Your task to perform on an android device: When is my next meeting? Image 0: 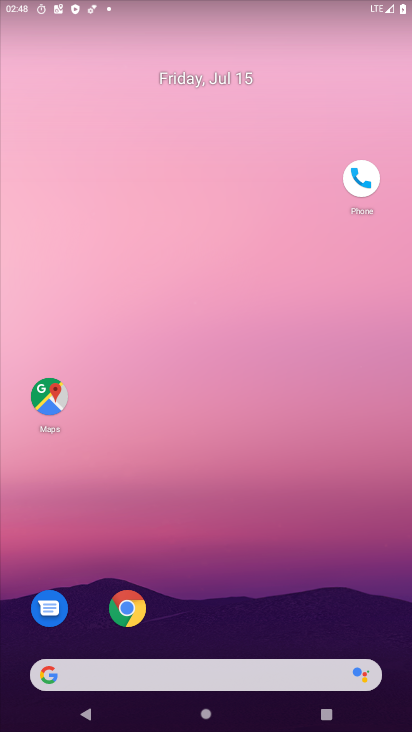
Step 0: drag from (259, 268) to (259, 217)
Your task to perform on an android device: When is my next meeting? Image 1: 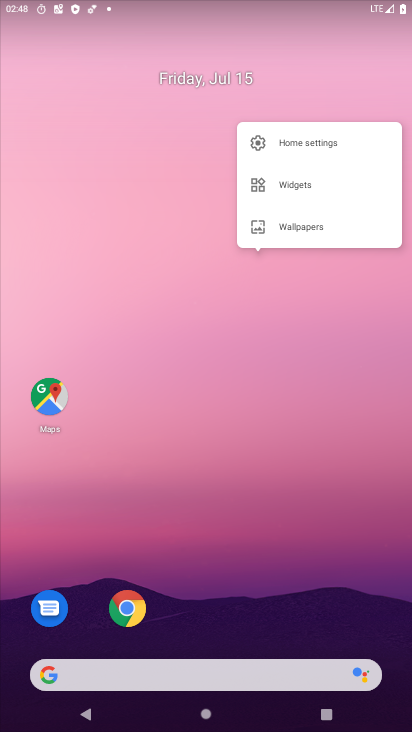
Step 1: click (256, 210)
Your task to perform on an android device: When is my next meeting? Image 2: 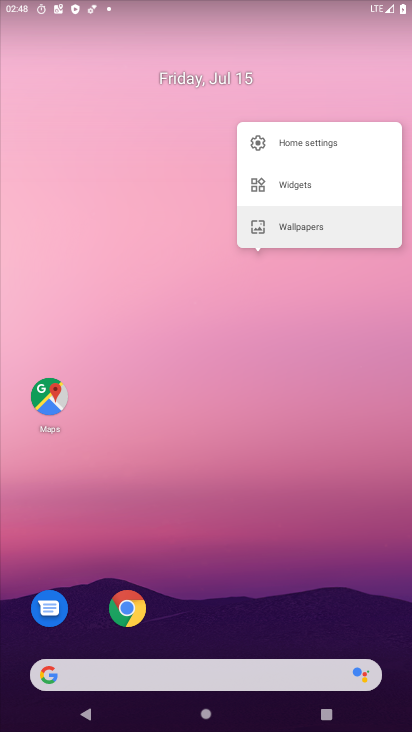
Step 2: drag from (192, 609) to (212, 354)
Your task to perform on an android device: When is my next meeting? Image 3: 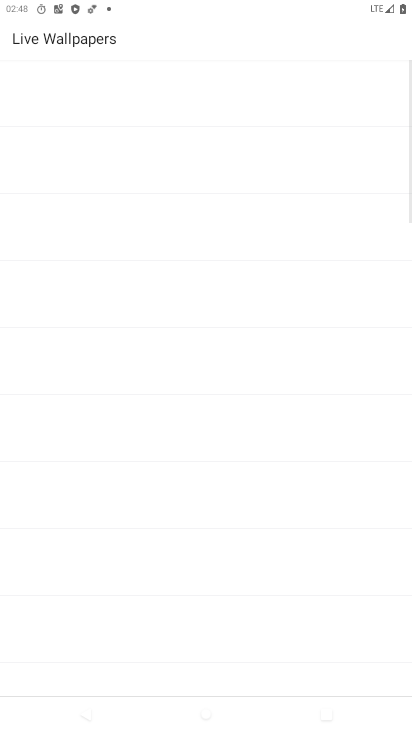
Step 3: click (255, 256)
Your task to perform on an android device: When is my next meeting? Image 4: 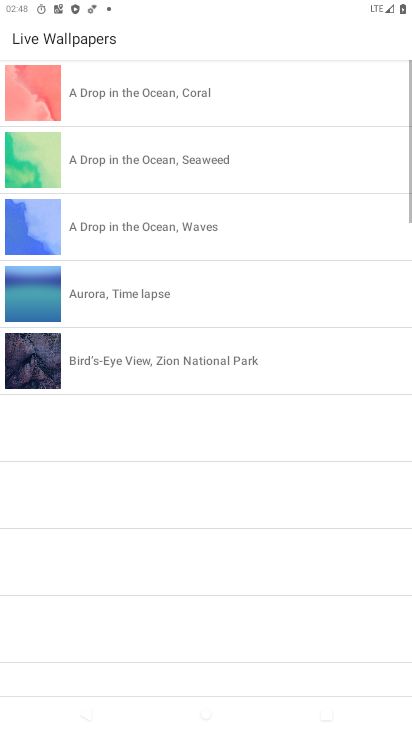
Step 4: drag from (224, 232) to (195, 312)
Your task to perform on an android device: When is my next meeting? Image 5: 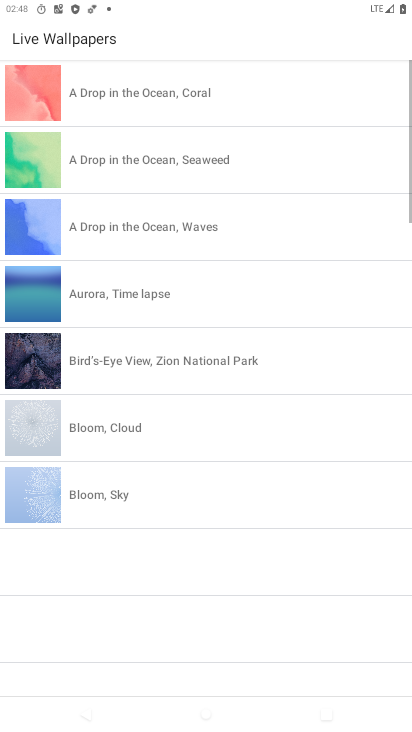
Step 5: press home button
Your task to perform on an android device: When is my next meeting? Image 6: 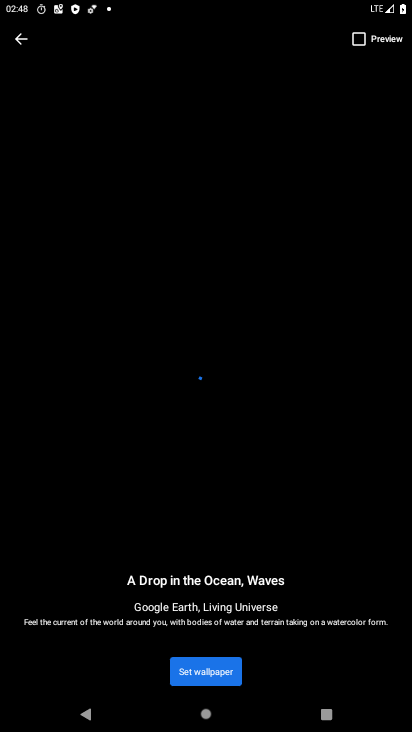
Step 6: press home button
Your task to perform on an android device: When is my next meeting? Image 7: 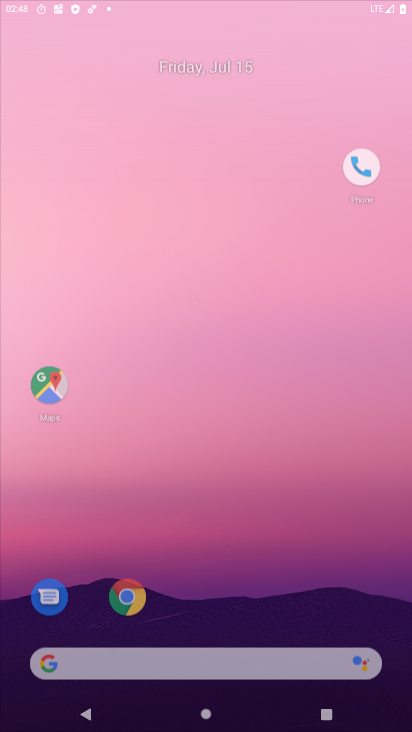
Step 7: drag from (247, 336) to (270, 231)
Your task to perform on an android device: When is my next meeting? Image 8: 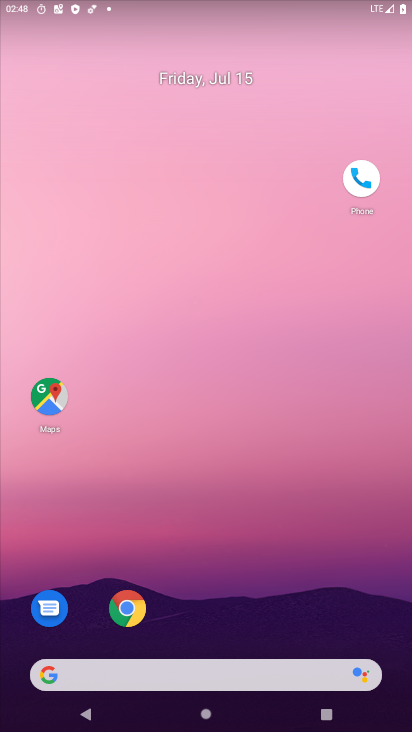
Step 8: drag from (190, 606) to (235, 218)
Your task to perform on an android device: When is my next meeting? Image 9: 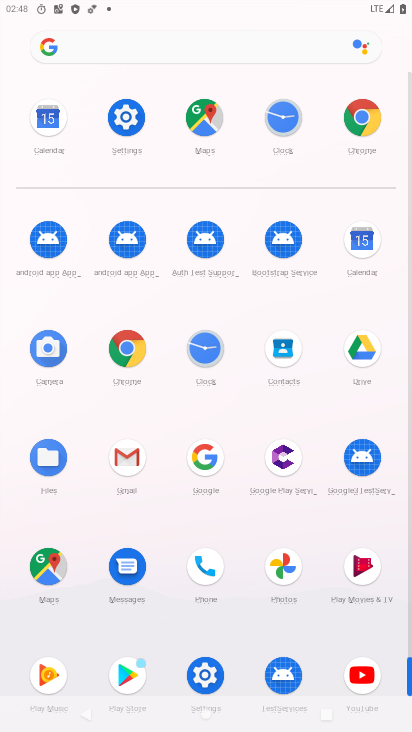
Step 9: click (124, 105)
Your task to perform on an android device: When is my next meeting? Image 10: 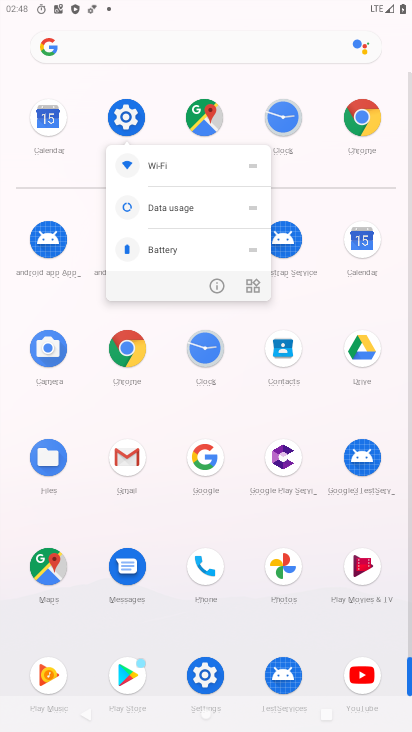
Step 10: click (356, 250)
Your task to perform on an android device: When is my next meeting? Image 11: 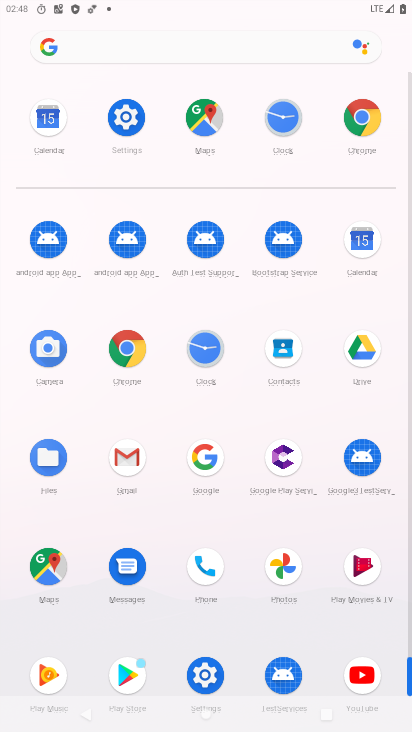
Step 11: click (356, 250)
Your task to perform on an android device: When is my next meeting? Image 12: 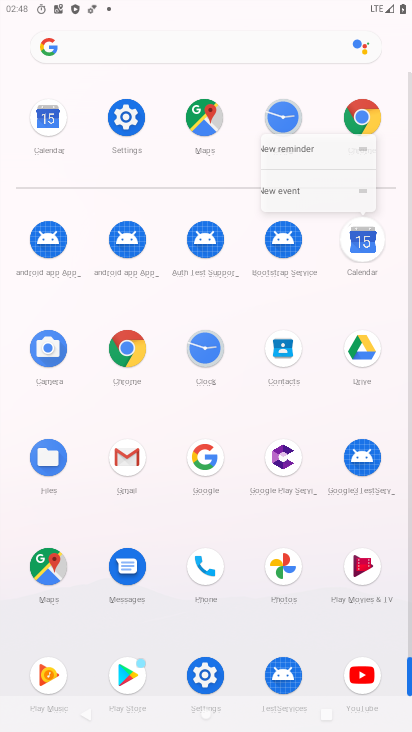
Step 12: click (356, 250)
Your task to perform on an android device: When is my next meeting? Image 13: 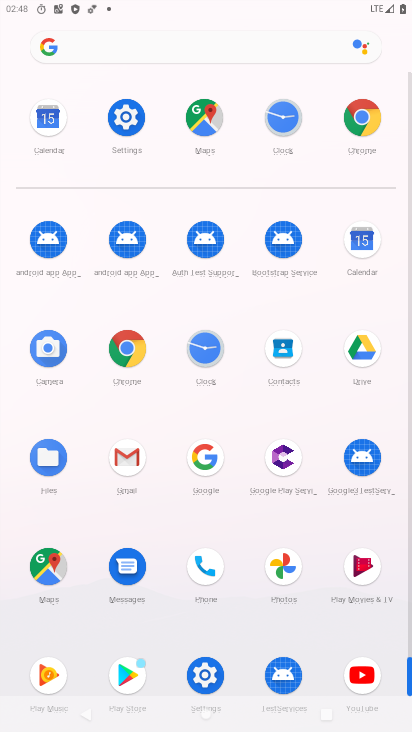
Step 13: click (357, 250)
Your task to perform on an android device: When is my next meeting? Image 14: 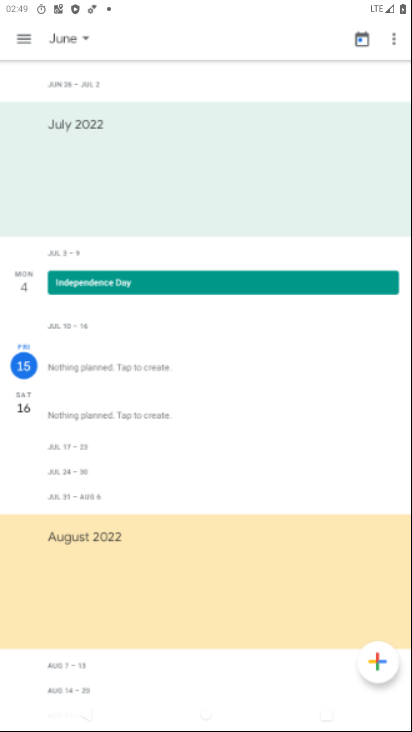
Step 14: drag from (235, 416) to (235, 261)
Your task to perform on an android device: When is my next meeting? Image 15: 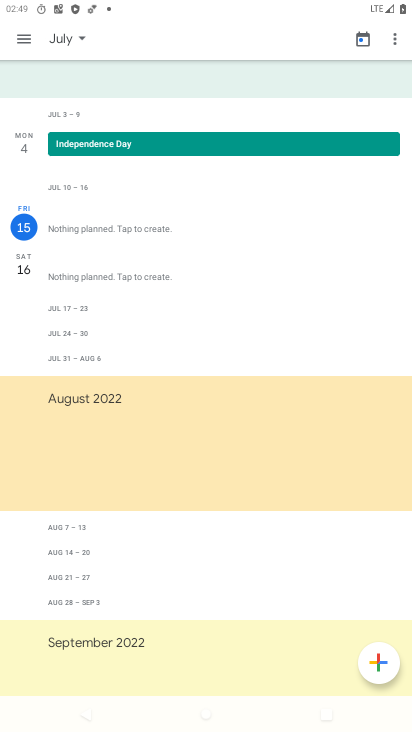
Step 15: drag from (253, 192) to (268, 518)
Your task to perform on an android device: When is my next meeting? Image 16: 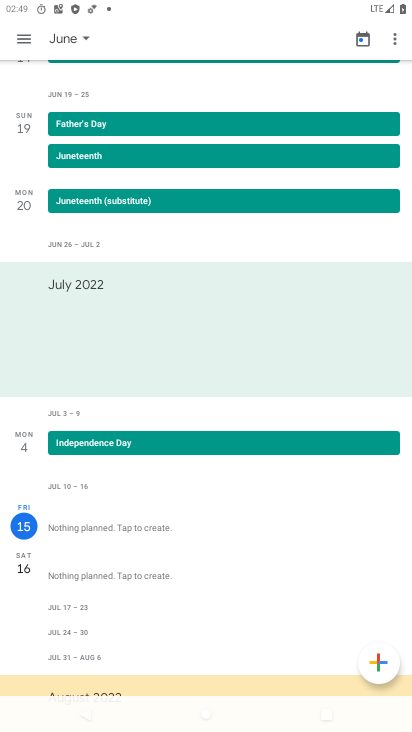
Step 16: click (368, 42)
Your task to perform on an android device: When is my next meeting? Image 17: 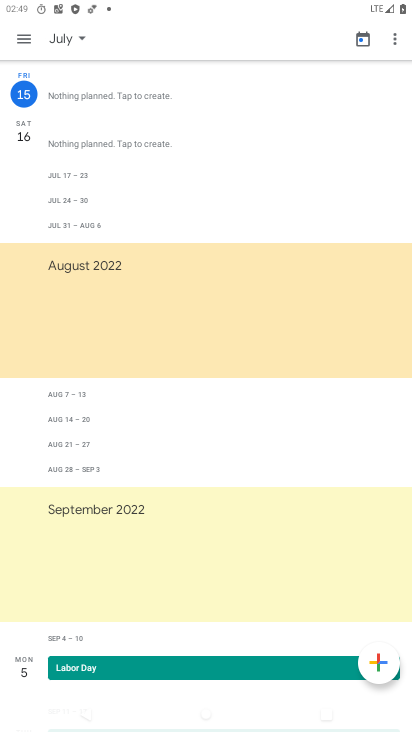
Step 17: click (63, 32)
Your task to perform on an android device: When is my next meeting? Image 18: 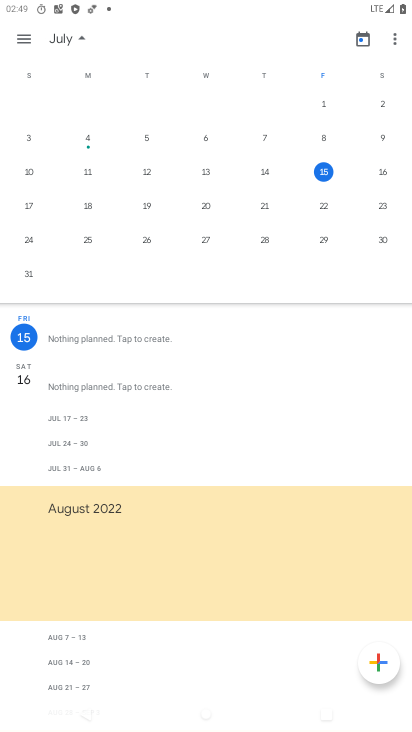
Step 18: click (379, 177)
Your task to perform on an android device: When is my next meeting? Image 19: 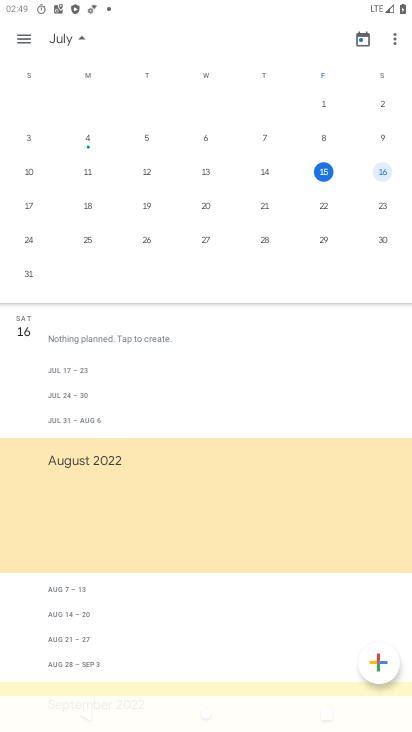
Step 19: task complete